Your task to perform on an android device: uninstall "File Manager" Image 0: 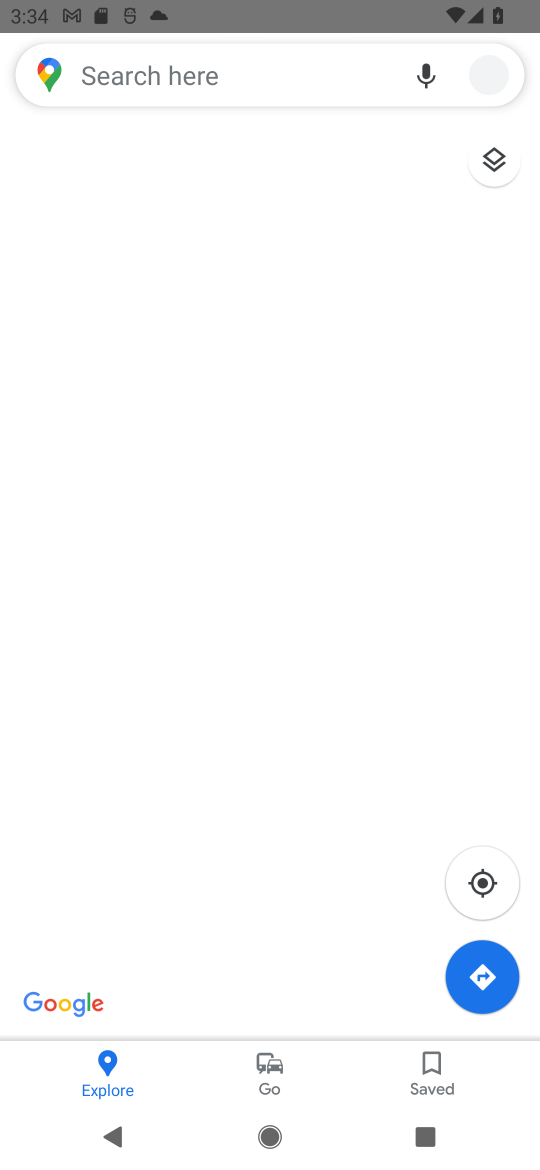
Step 0: press home button
Your task to perform on an android device: uninstall "File Manager" Image 1: 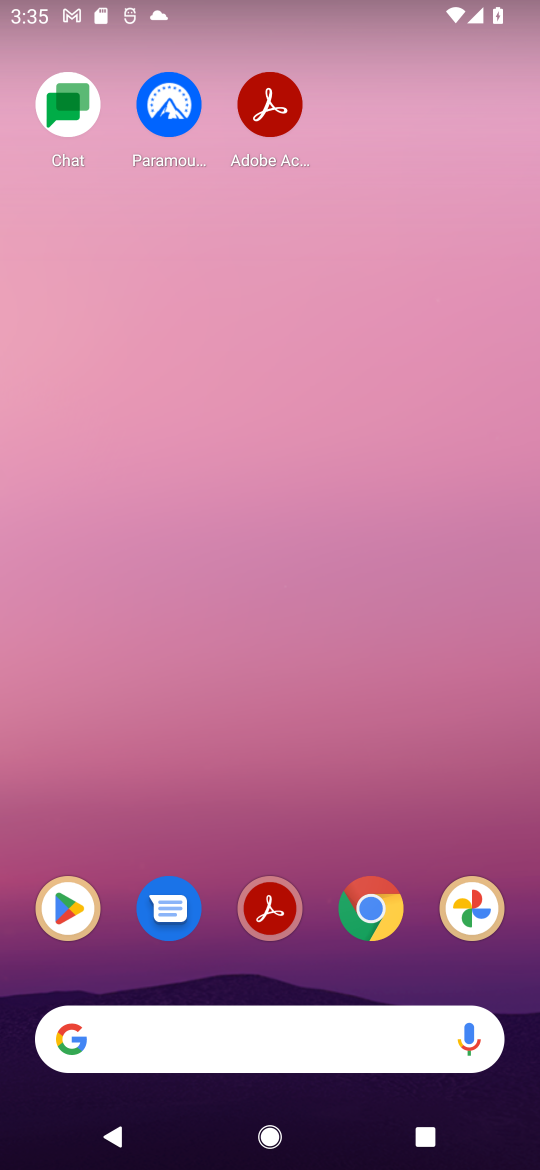
Step 1: click (66, 896)
Your task to perform on an android device: uninstall "File Manager" Image 2: 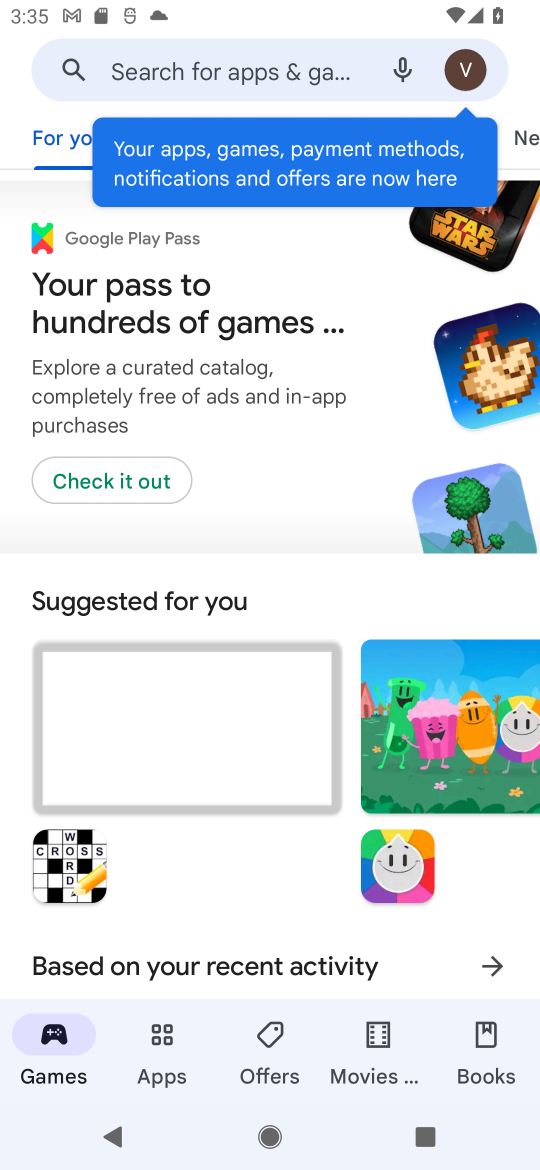
Step 2: click (168, 64)
Your task to perform on an android device: uninstall "File Manager" Image 3: 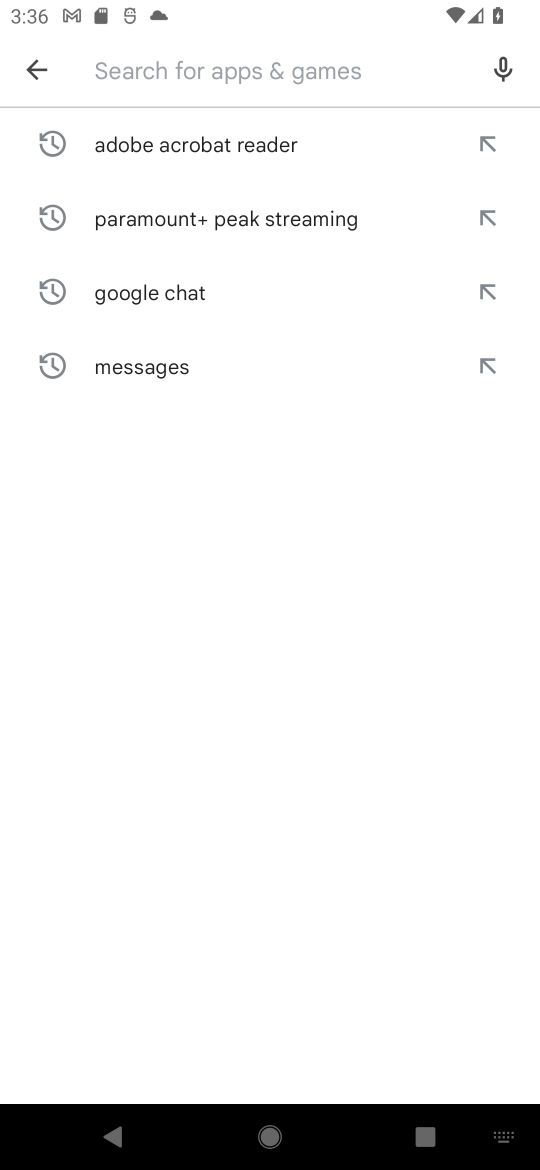
Step 3: type "File Manager"
Your task to perform on an android device: uninstall "File Manager" Image 4: 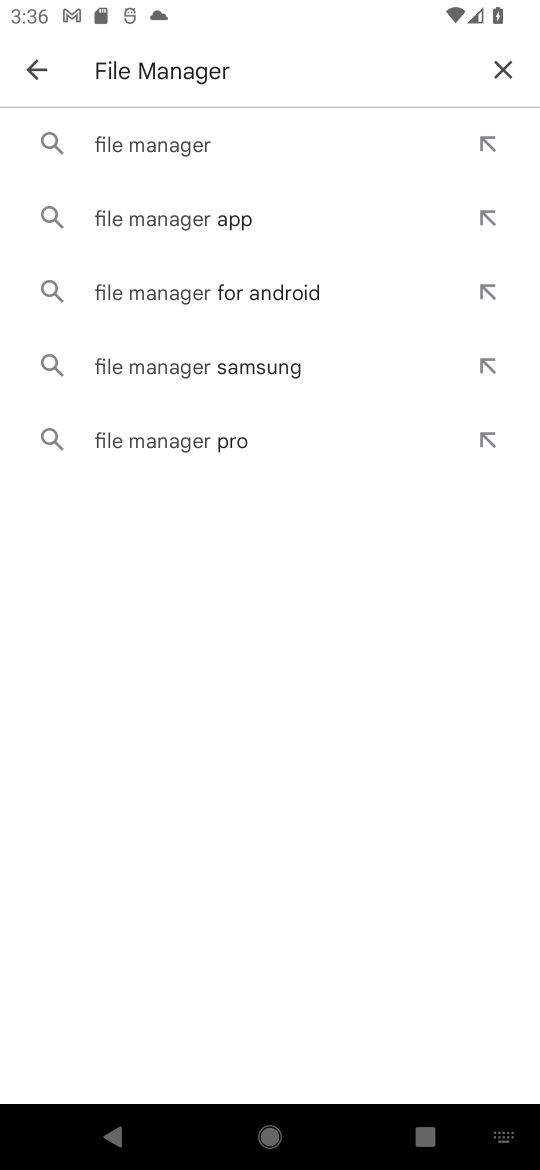
Step 4: click (228, 139)
Your task to perform on an android device: uninstall "File Manager" Image 5: 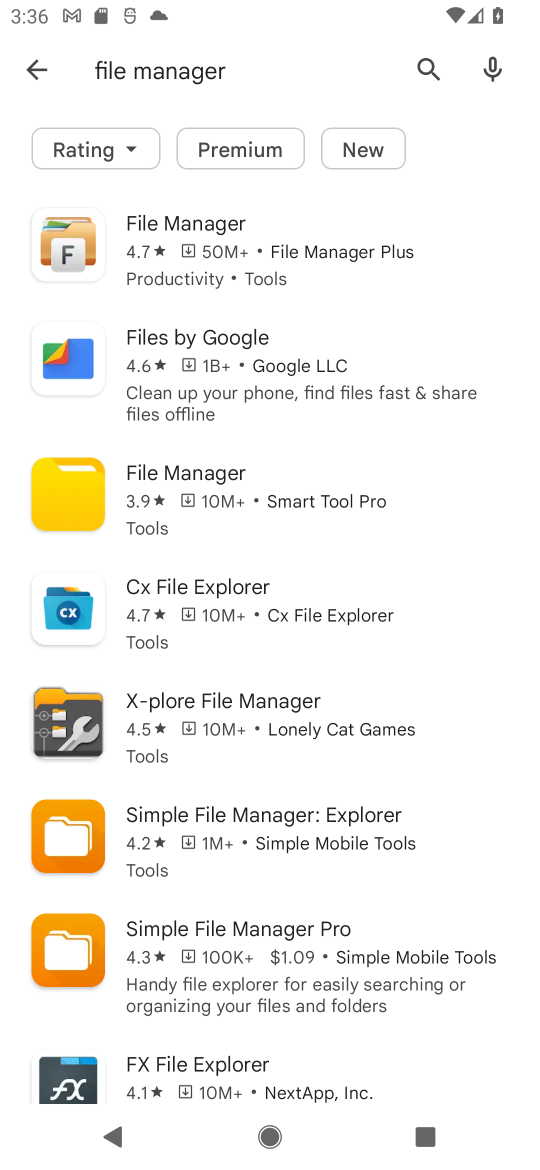
Step 5: click (229, 229)
Your task to perform on an android device: uninstall "File Manager" Image 6: 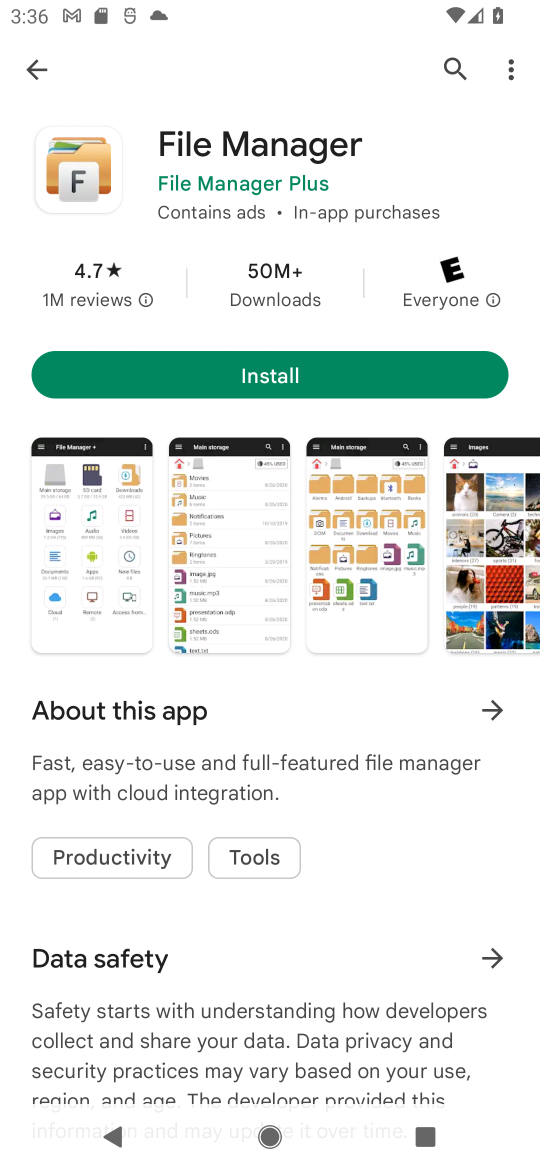
Step 6: task complete